Your task to perform on an android device: read, delete, or share a saved page in the chrome app Image 0: 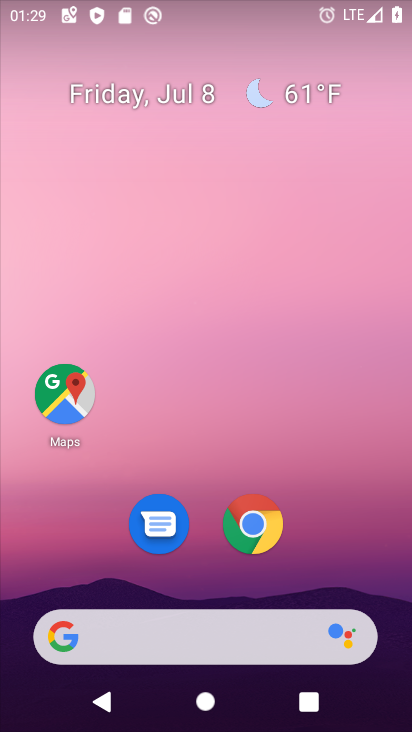
Step 0: drag from (346, 562) to (357, 242)
Your task to perform on an android device: read, delete, or share a saved page in the chrome app Image 1: 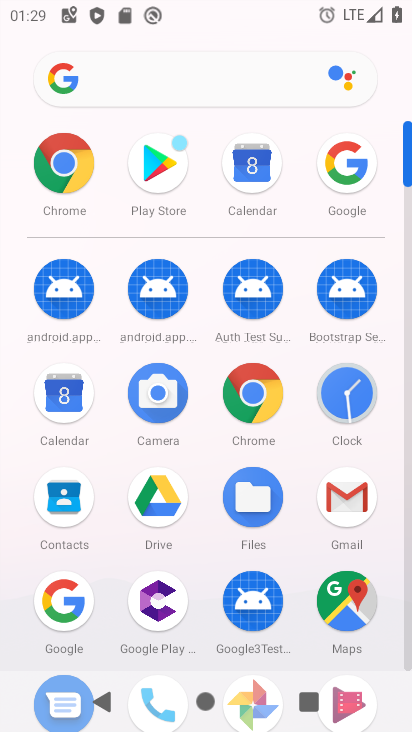
Step 1: click (268, 402)
Your task to perform on an android device: read, delete, or share a saved page in the chrome app Image 2: 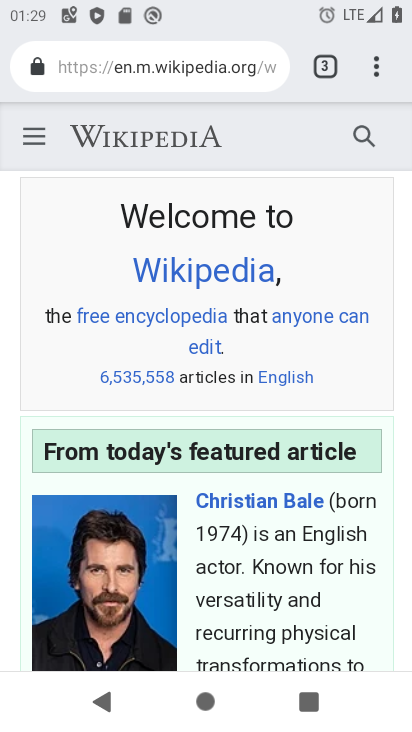
Step 2: click (371, 70)
Your task to perform on an android device: read, delete, or share a saved page in the chrome app Image 3: 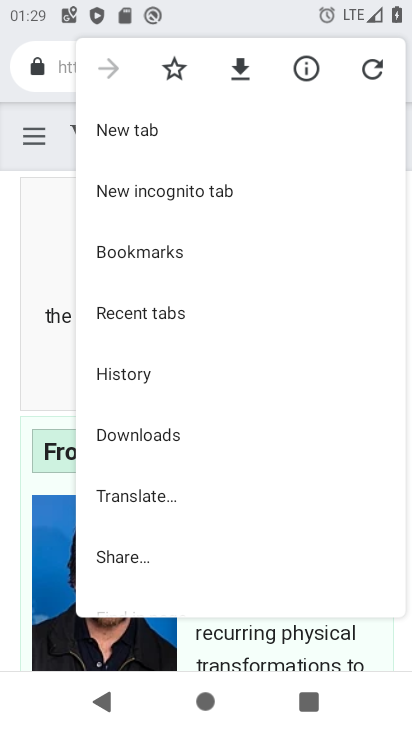
Step 3: click (160, 434)
Your task to perform on an android device: read, delete, or share a saved page in the chrome app Image 4: 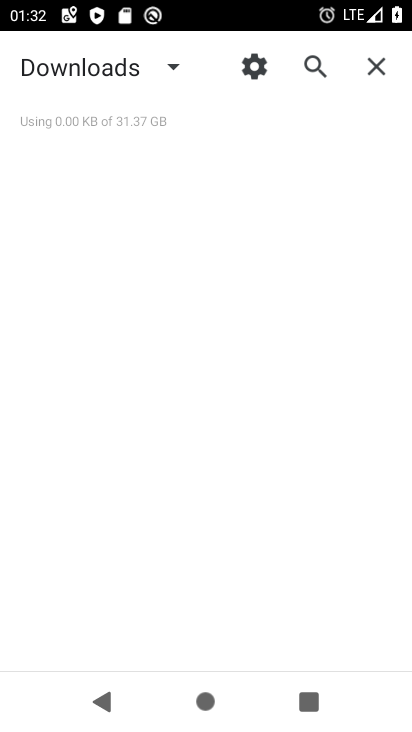
Step 4: task complete